Your task to perform on an android device: see creations saved in the google photos Image 0: 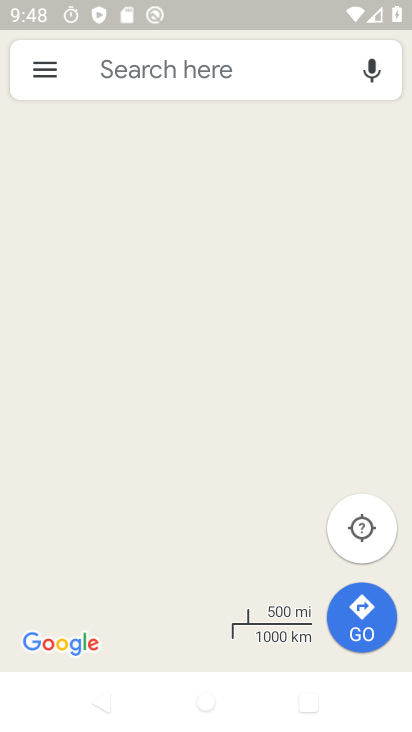
Step 0: press home button
Your task to perform on an android device: see creations saved in the google photos Image 1: 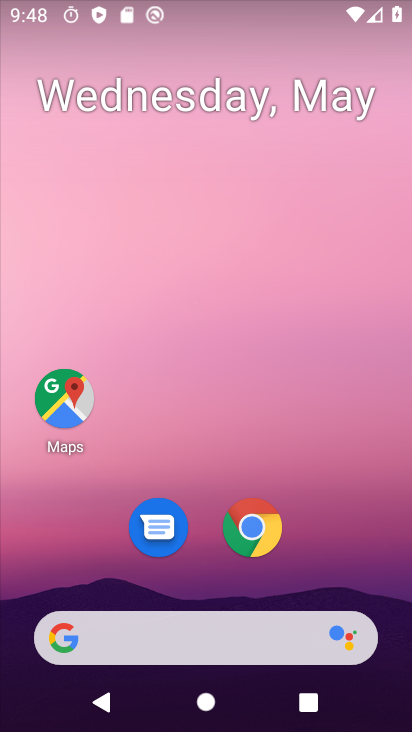
Step 1: drag from (314, 557) to (317, 25)
Your task to perform on an android device: see creations saved in the google photos Image 2: 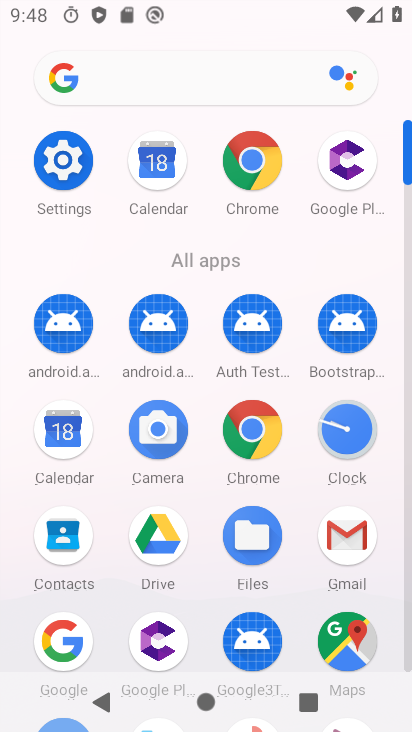
Step 2: drag from (194, 264) to (222, 35)
Your task to perform on an android device: see creations saved in the google photos Image 3: 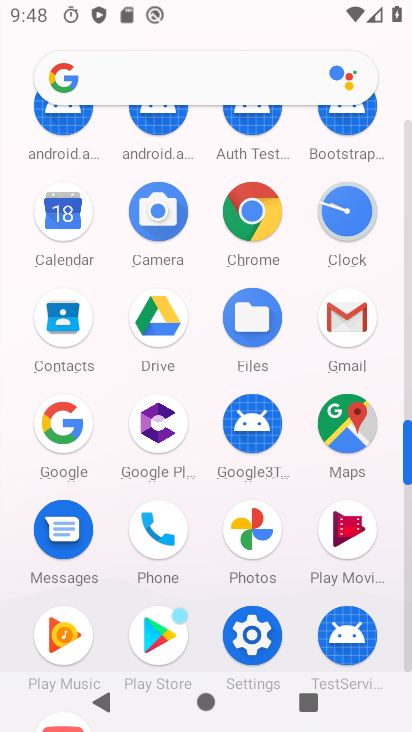
Step 3: click (265, 530)
Your task to perform on an android device: see creations saved in the google photos Image 4: 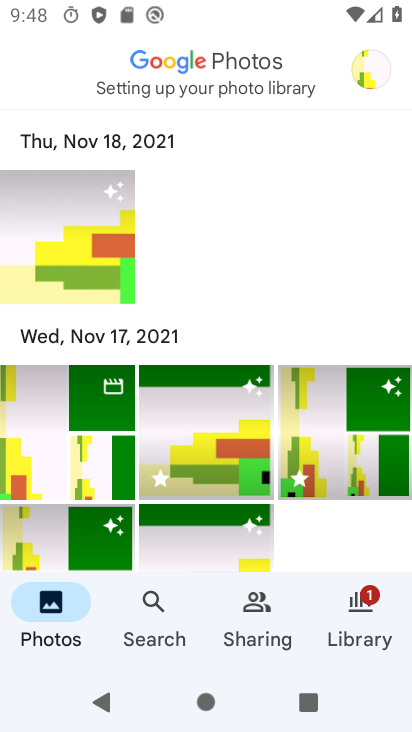
Step 4: click (157, 600)
Your task to perform on an android device: see creations saved in the google photos Image 5: 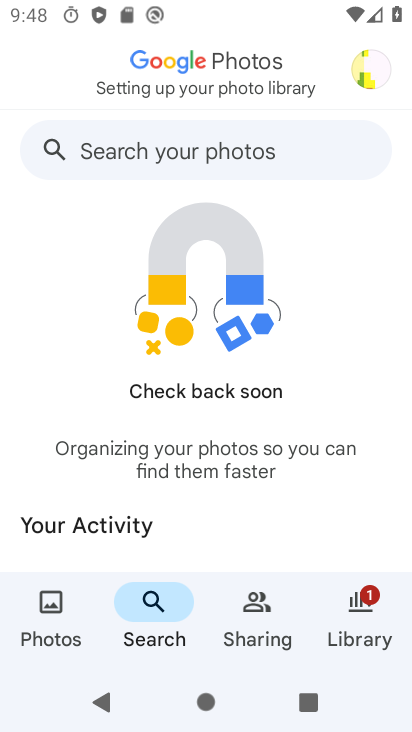
Step 5: click (142, 162)
Your task to perform on an android device: see creations saved in the google photos Image 6: 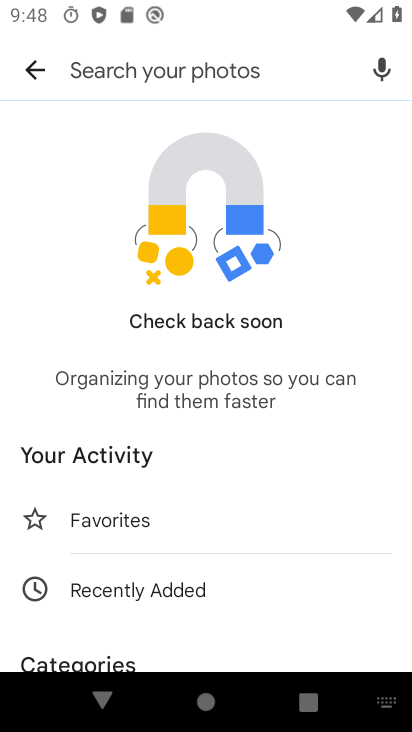
Step 6: drag from (149, 597) to (146, 248)
Your task to perform on an android device: see creations saved in the google photos Image 7: 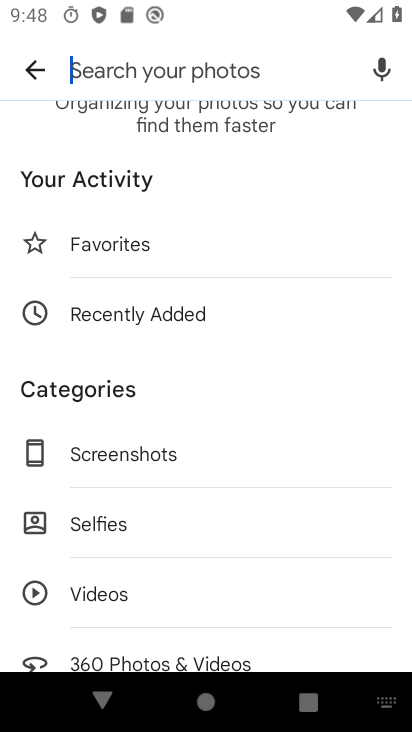
Step 7: drag from (223, 579) to (219, 225)
Your task to perform on an android device: see creations saved in the google photos Image 8: 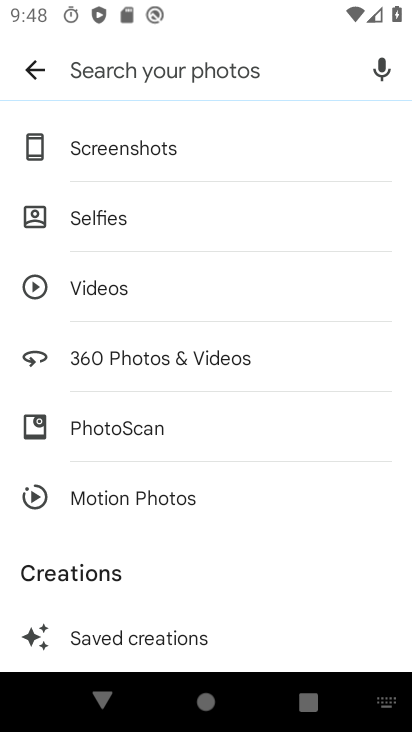
Step 8: click (155, 638)
Your task to perform on an android device: see creations saved in the google photos Image 9: 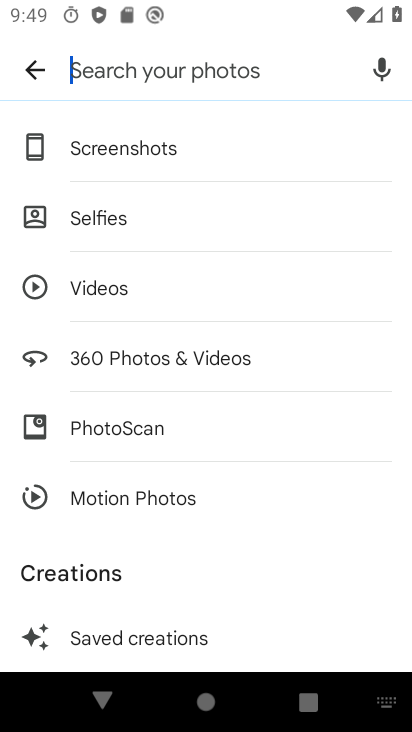
Step 9: click (77, 637)
Your task to perform on an android device: see creations saved in the google photos Image 10: 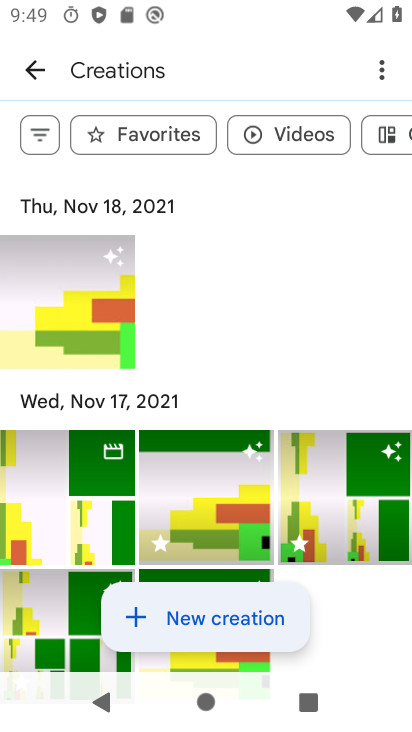
Step 10: task complete